Your task to perform on an android device: Open battery settings Image 0: 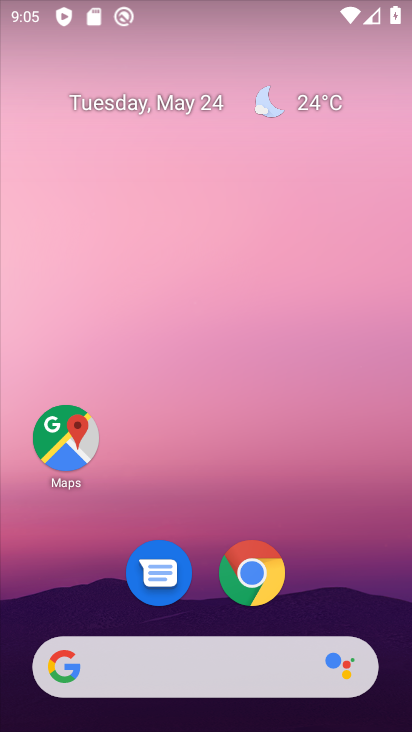
Step 0: drag from (391, 607) to (352, 131)
Your task to perform on an android device: Open battery settings Image 1: 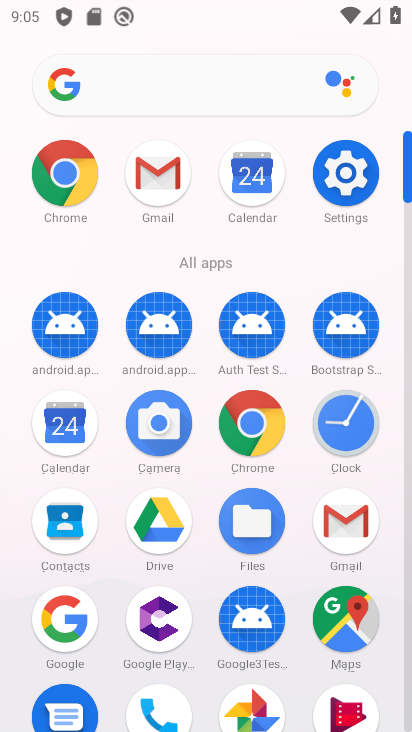
Step 1: click (406, 671)
Your task to perform on an android device: Open battery settings Image 2: 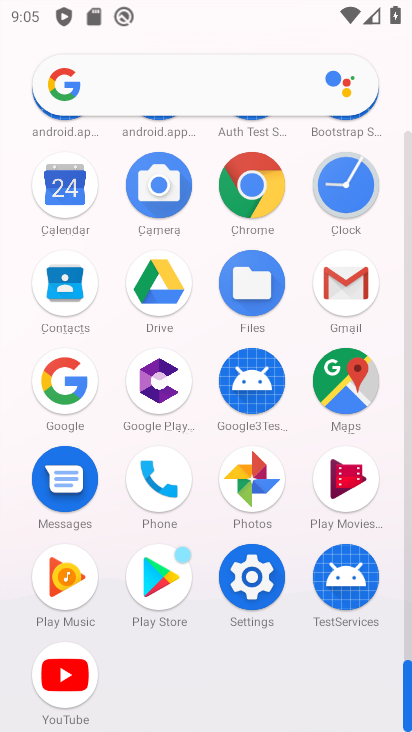
Step 2: click (251, 572)
Your task to perform on an android device: Open battery settings Image 3: 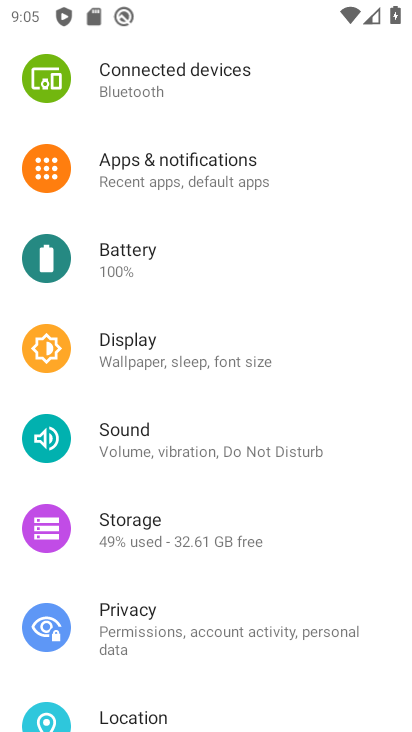
Step 3: click (130, 250)
Your task to perform on an android device: Open battery settings Image 4: 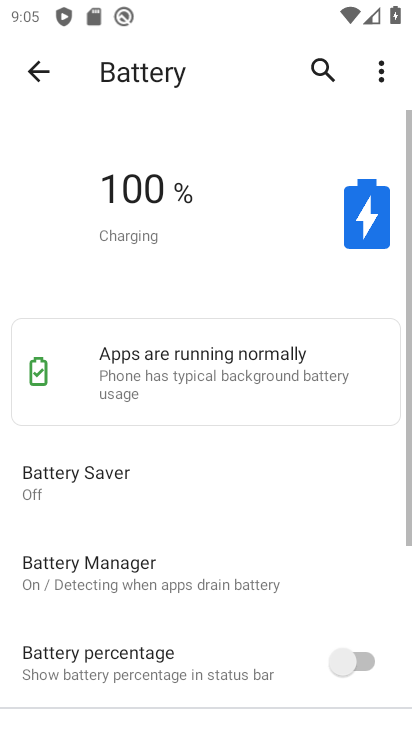
Step 4: task complete